Your task to perform on an android device: Search for pizza restaurants on Maps Image 0: 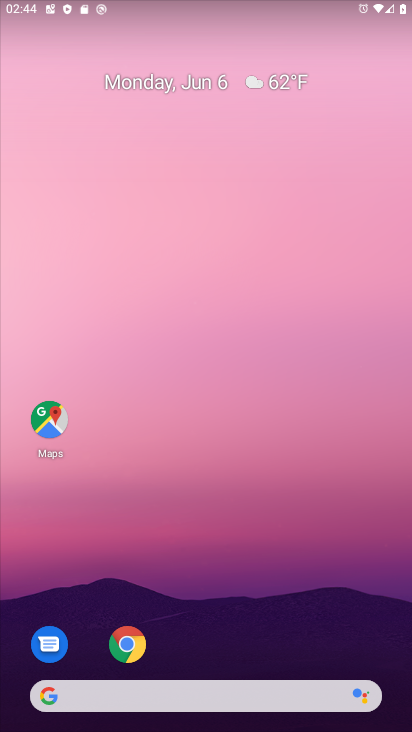
Step 0: click (42, 422)
Your task to perform on an android device: Search for pizza restaurants on Maps Image 1: 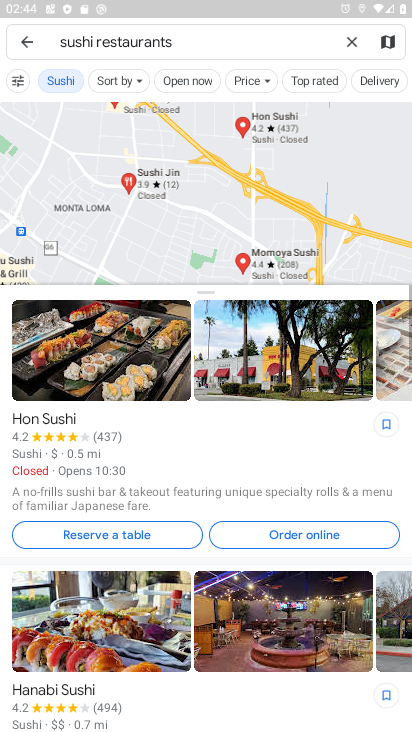
Step 1: click (348, 41)
Your task to perform on an android device: Search for pizza restaurants on Maps Image 2: 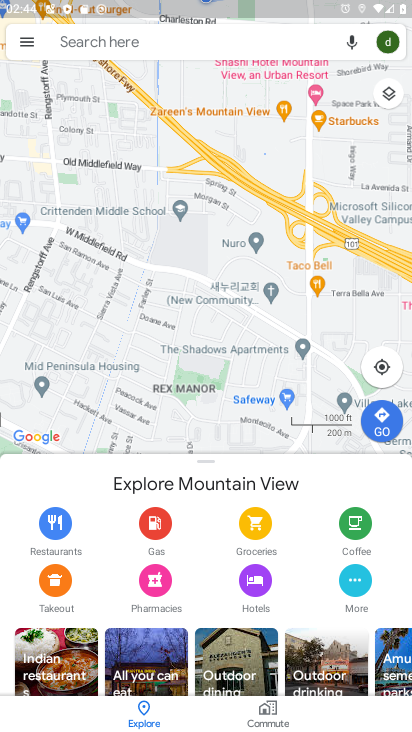
Step 2: click (200, 41)
Your task to perform on an android device: Search for pizza restaurants on Maps Image 3: 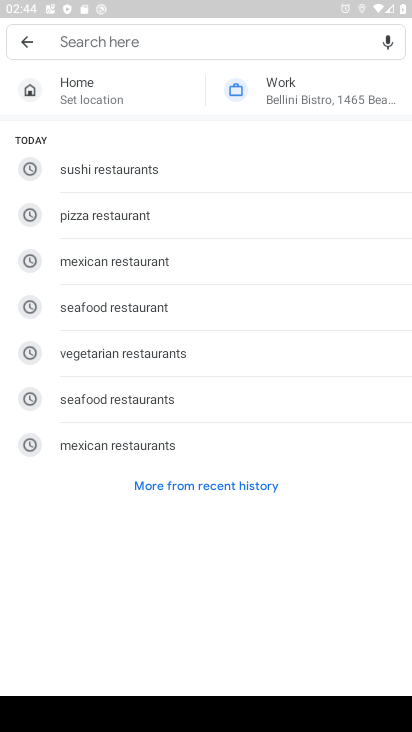
Step 3: click (101, 218)
Your task to perform on an android device: Search for pizza restaurants on Maps Image 4: 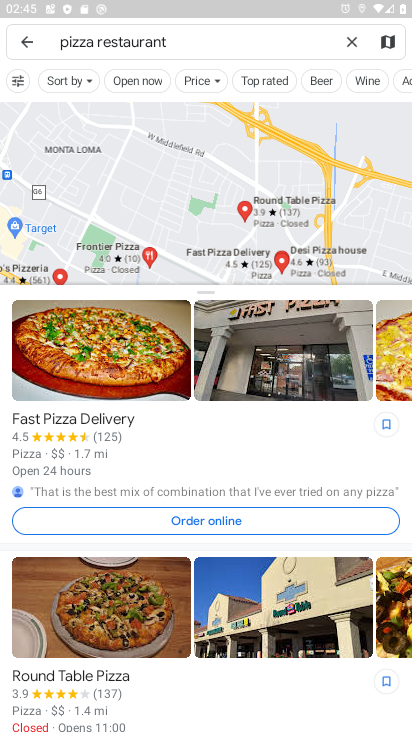
Step 4: task complete